Your task to perform on an android device: add a contact in the contacts app Image 0: 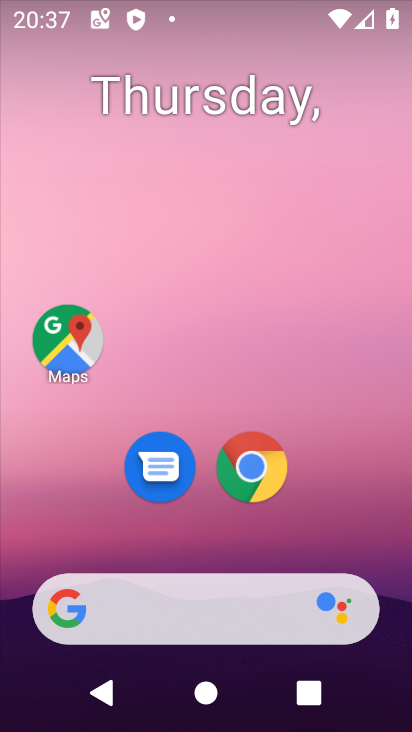
Step 0: drag from (345, 402) to (346, 285)
Your task to perform on an android device: add a contact in the contacts app Image 1: 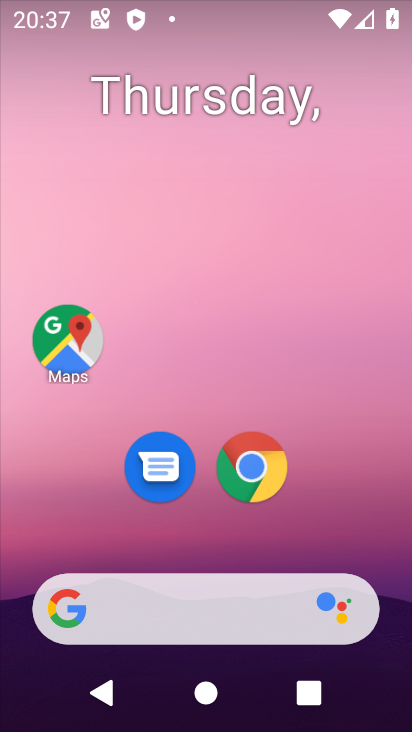
Step 1: drag from (362, 344) to (384, 59)
Your task to perform on an android device: add a contact in the contacts app Image 2: 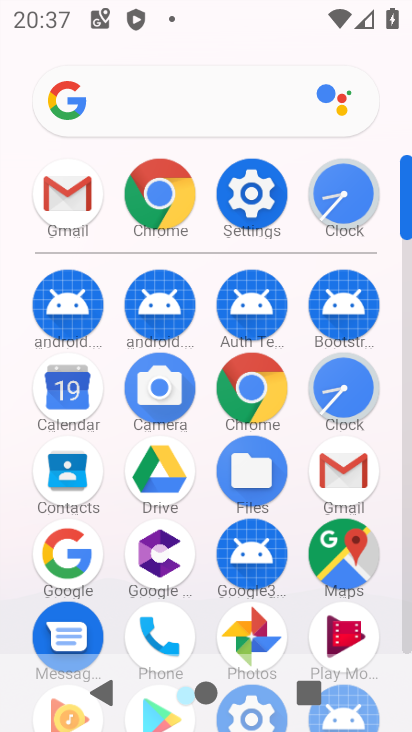
Step 2: click (168, 617)
Your task to perform on an android device: add a contact in the contacts app Image 3: 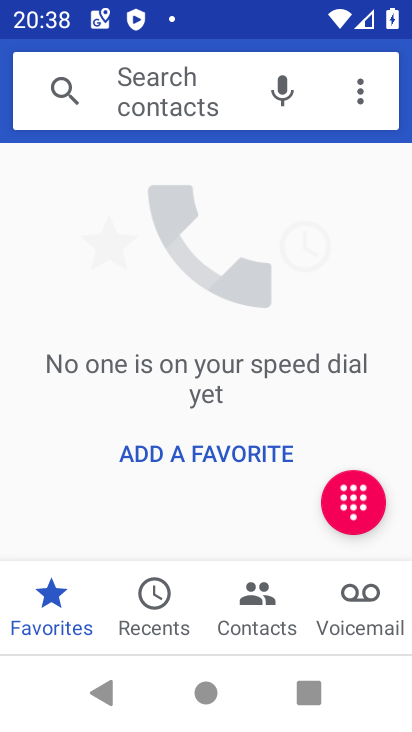
Step 3: drag from (255, 597) to (260, 293)
Your task to perform on an android device: add a contact in the contacts app Image 4: 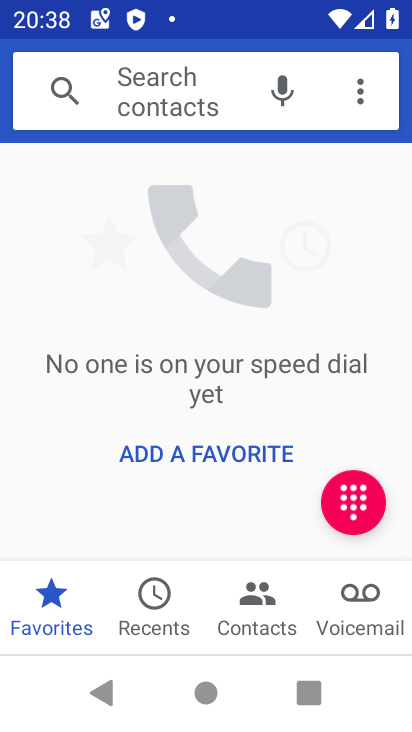
Step 4: click (230, 454)
Your task to perform on an android device: add a contact in the contacts app Image 5: 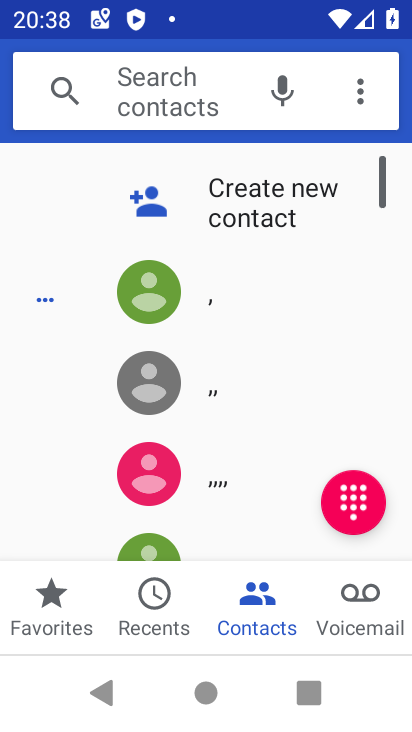
Step 5: click (170, 194)
Your task to perform on an android device: add a contact in the contacts app Image 6: 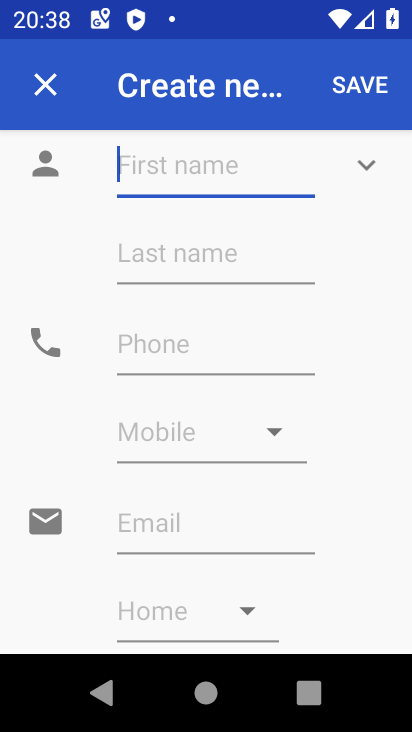
Step 6: click (185, 174)
Your task to perform on an android device: add a contact in the contacts app Image 7: 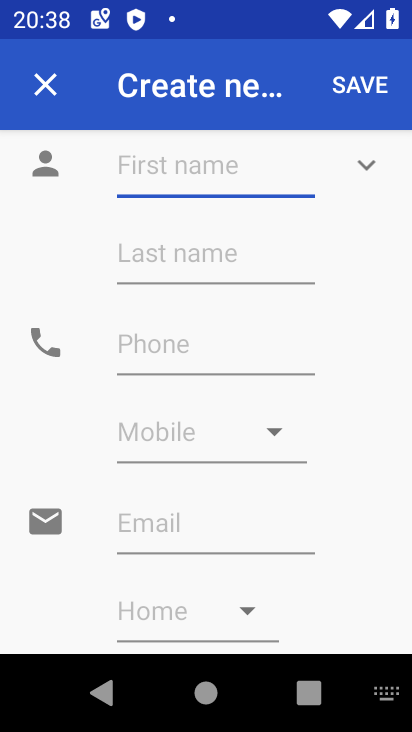
Step 7: type "jhjhjhjhhjuyu"
Your task to perform on an android device: add a contact in the contacts app Image 8: 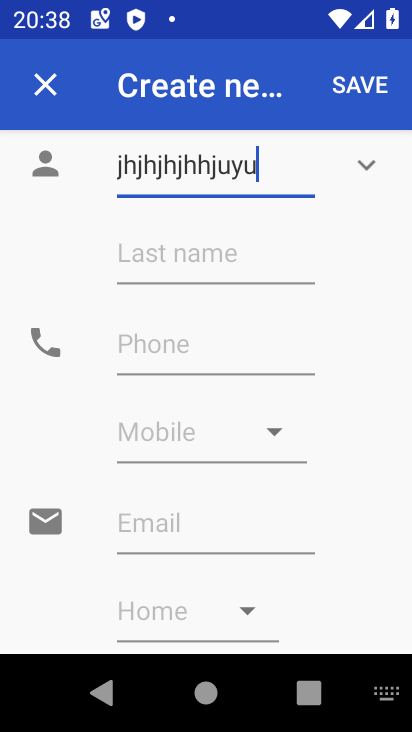
Step 8: click (171, 350)
Your task to perform on an android device: add a contact in the contacts app Image 9: 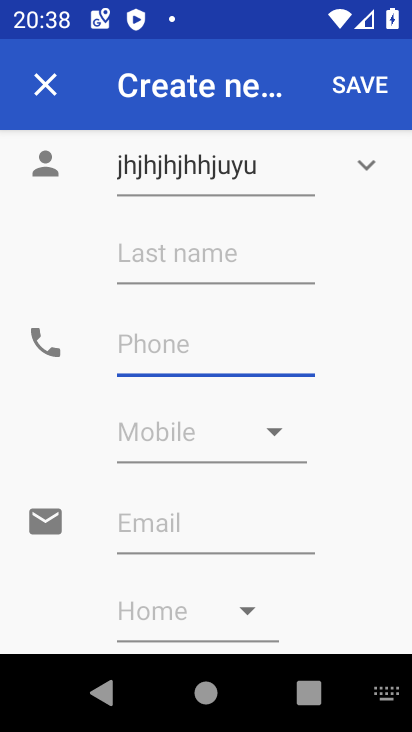
Step 9: type "98989898"
Your task to perform on an android device: add a contact in the contacts app Image 10: 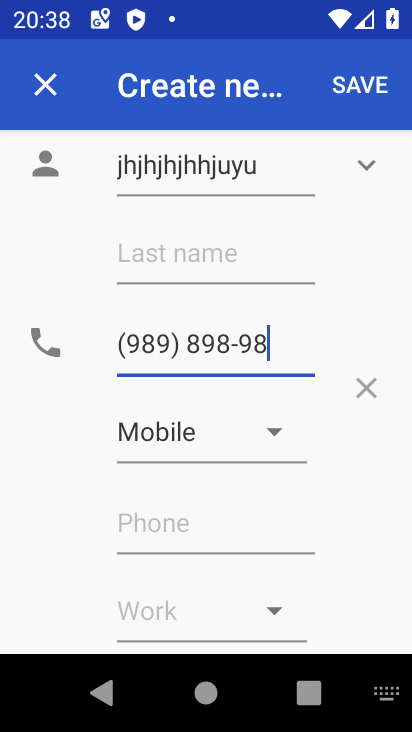
Step 10: click (360, 78)
Your task to perform on an android device: add a contact in the contacts app Image 11: 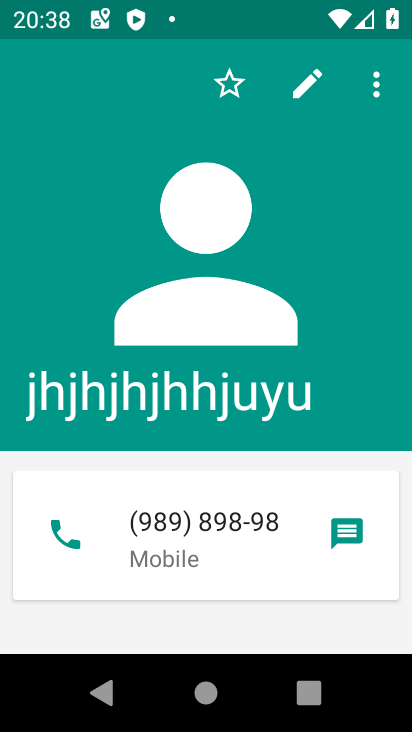
Step 11: task complete